Your task to perform on an android device: Search for sushi restaurants on Maps Image 0: 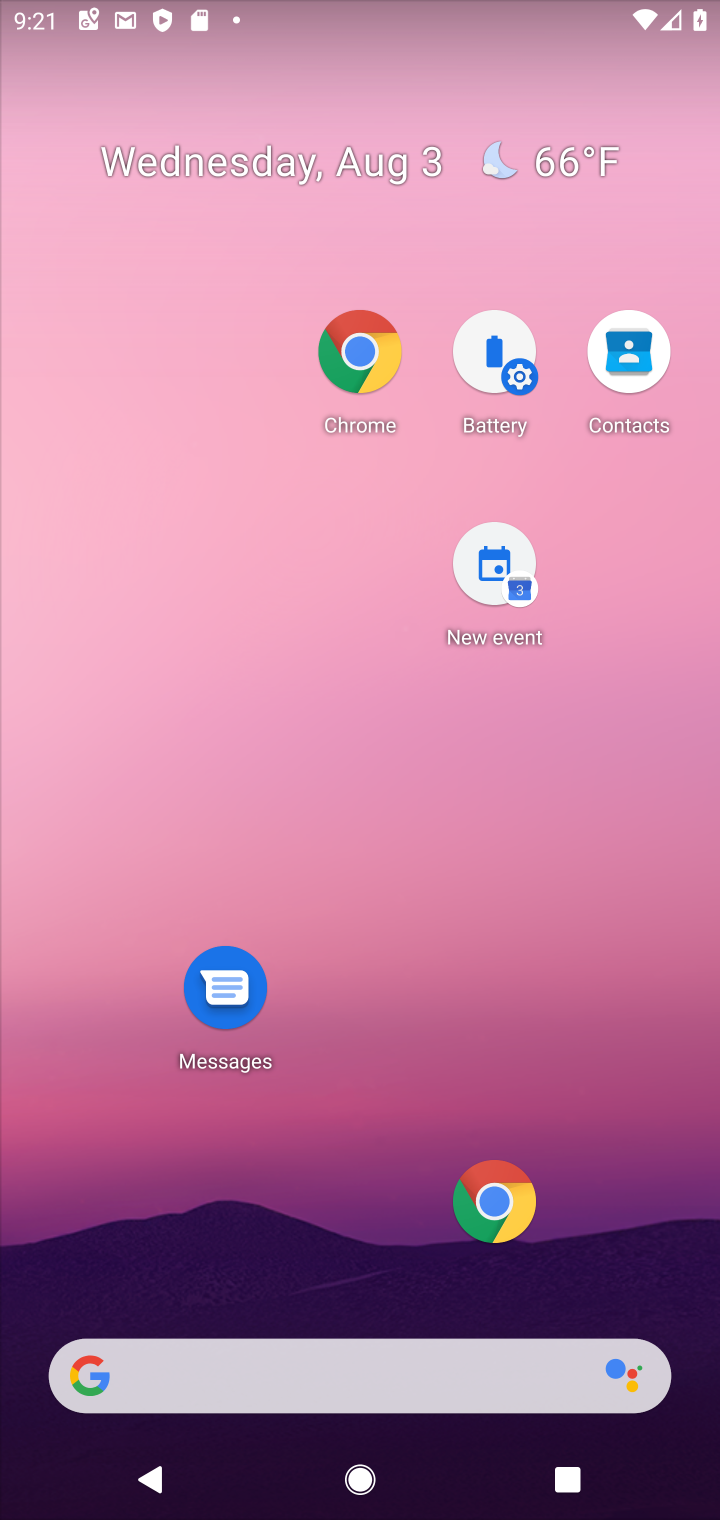
Step 0: drag from (418, 791) to (384, 42)
Your task to perform on an android device: Search for sushi restaurants on Maps Image 1: 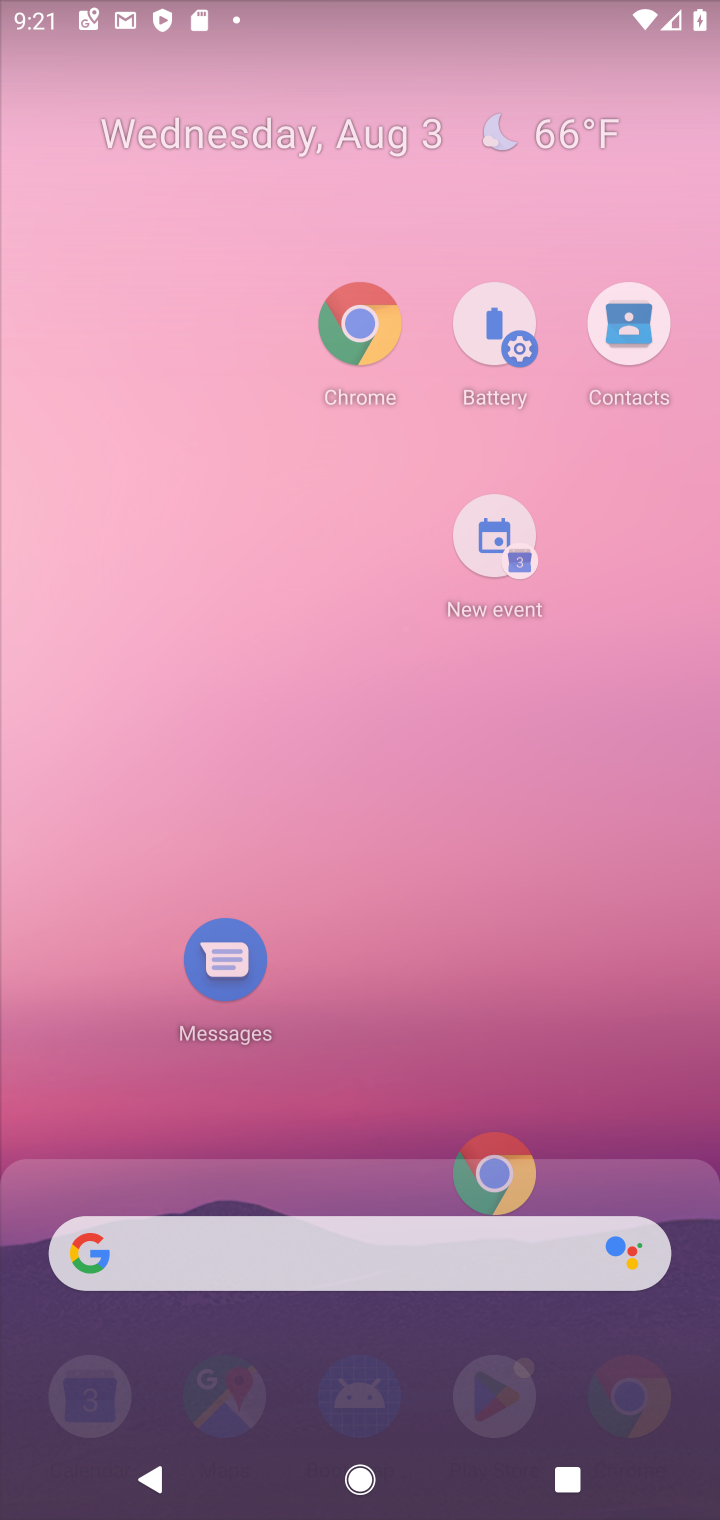
Step 1: drag from (355, 228) to (330, 11)
Your task to perform on an android device: Search for sushi restaurants on Maps Image 2: 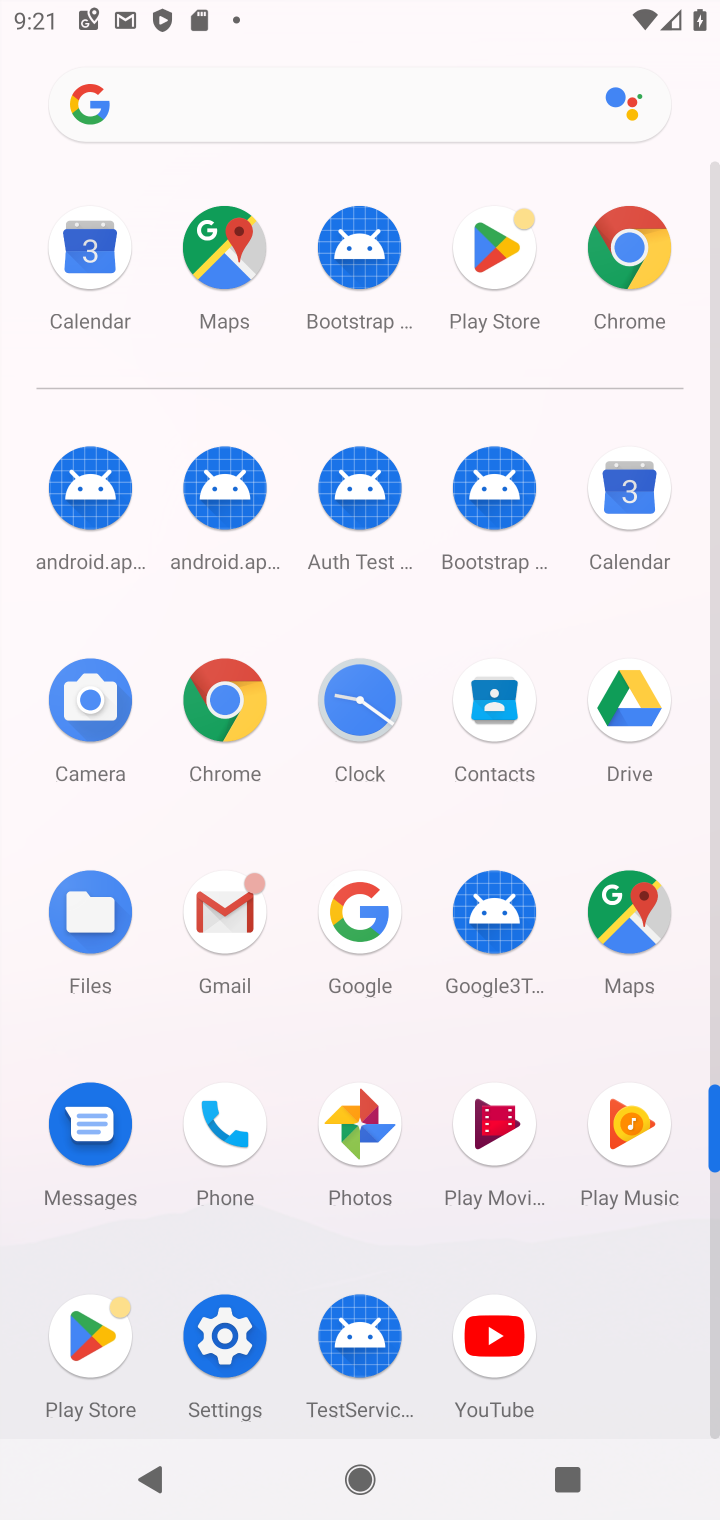
Step 2: click (619, 907)
Your task to perform on an android device: Search for sushi restaurants on Maps Image 3: 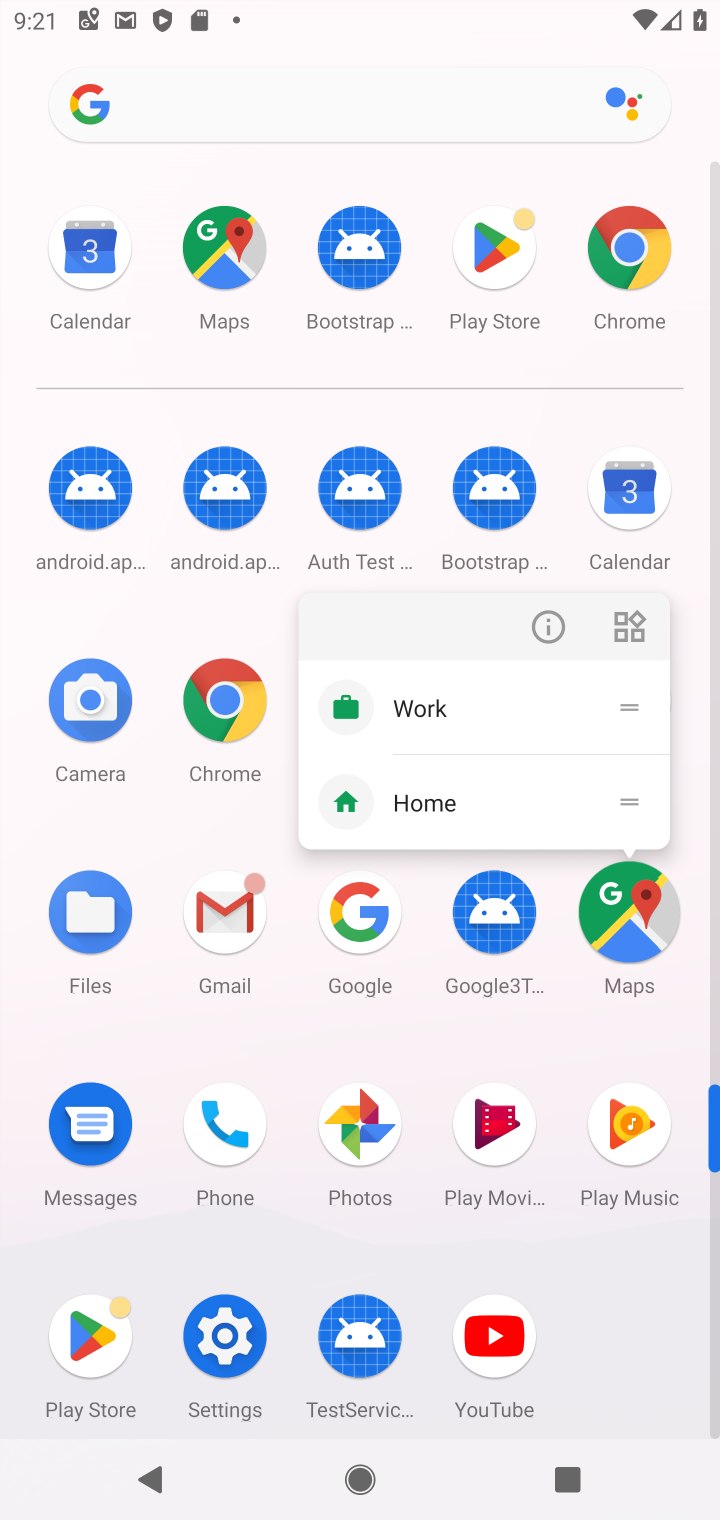
Step 3: click (619, 907)
Your task to perform on an android device: Search for sushi restaurants on Maps Image 4: 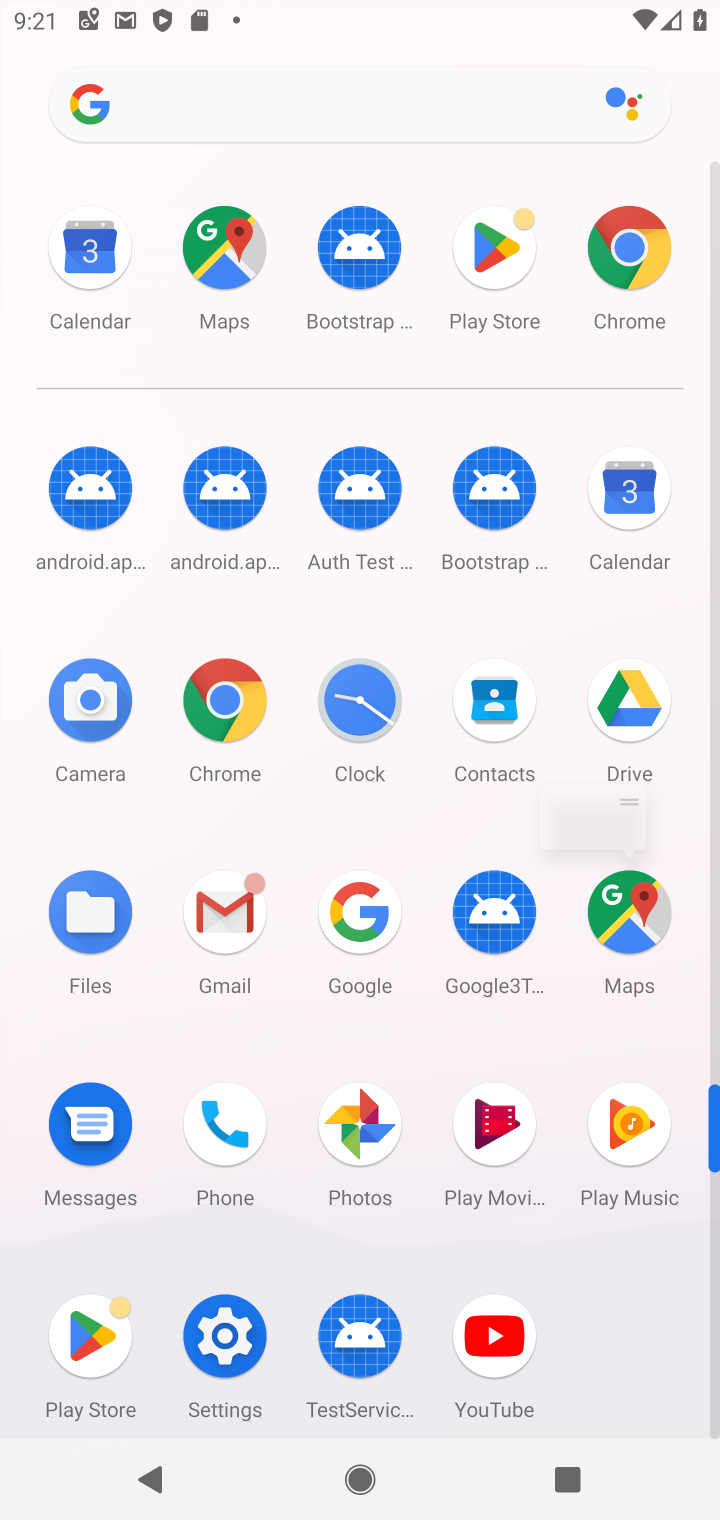
Step 4: click (619, 904)
Your task to perform on an android device: Search for sushi restaurants on Maps Image 5: 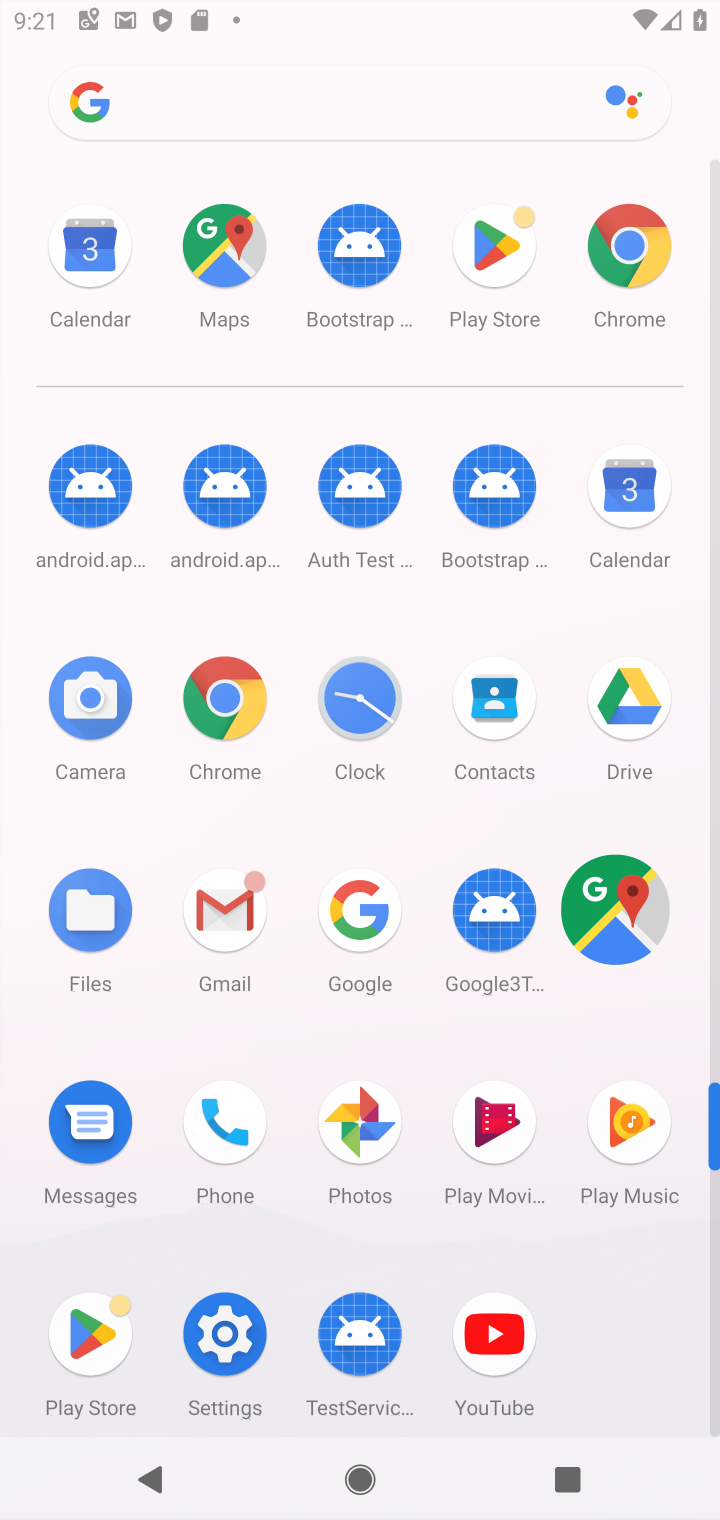
Step 5: click (617, 905)
Your task to perform on an android device: Search for sushi restaurants on Maps Image 6: 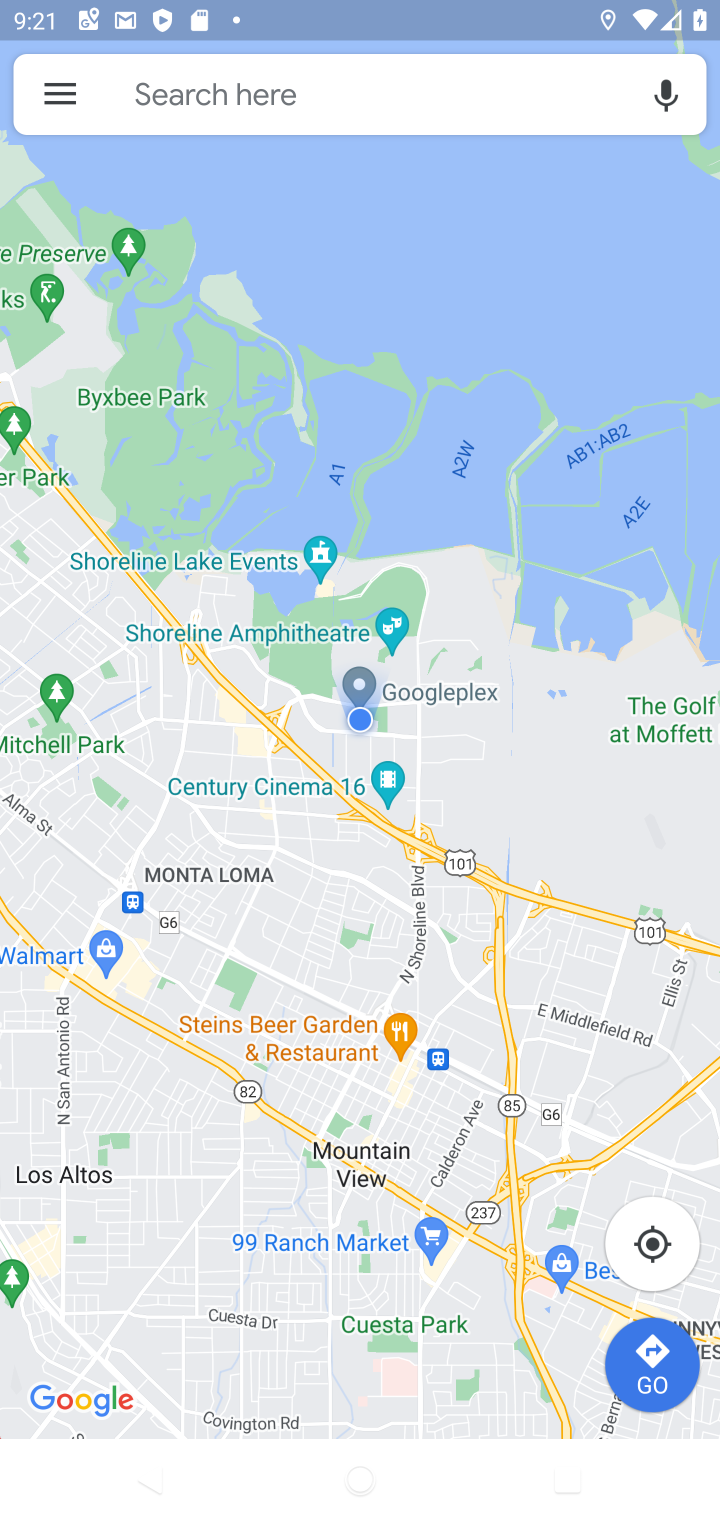
Step 6: click (163, 88)
Your task to perform on an android device: Search for sushi restaurants on Maps Image 7: 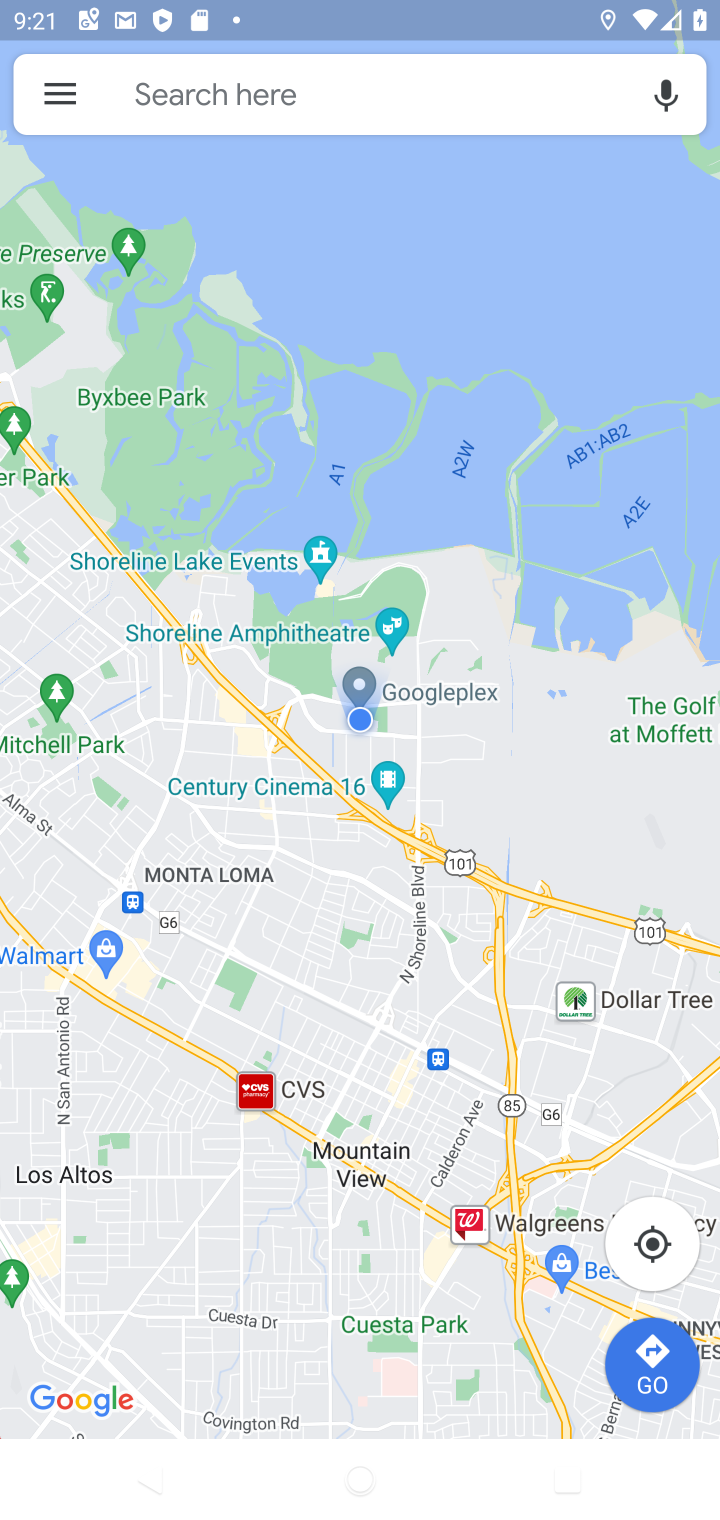
Step 7: click (163, 88)
Your task to perform on an android device: Search for sushi restaurants on Maps Image 8: 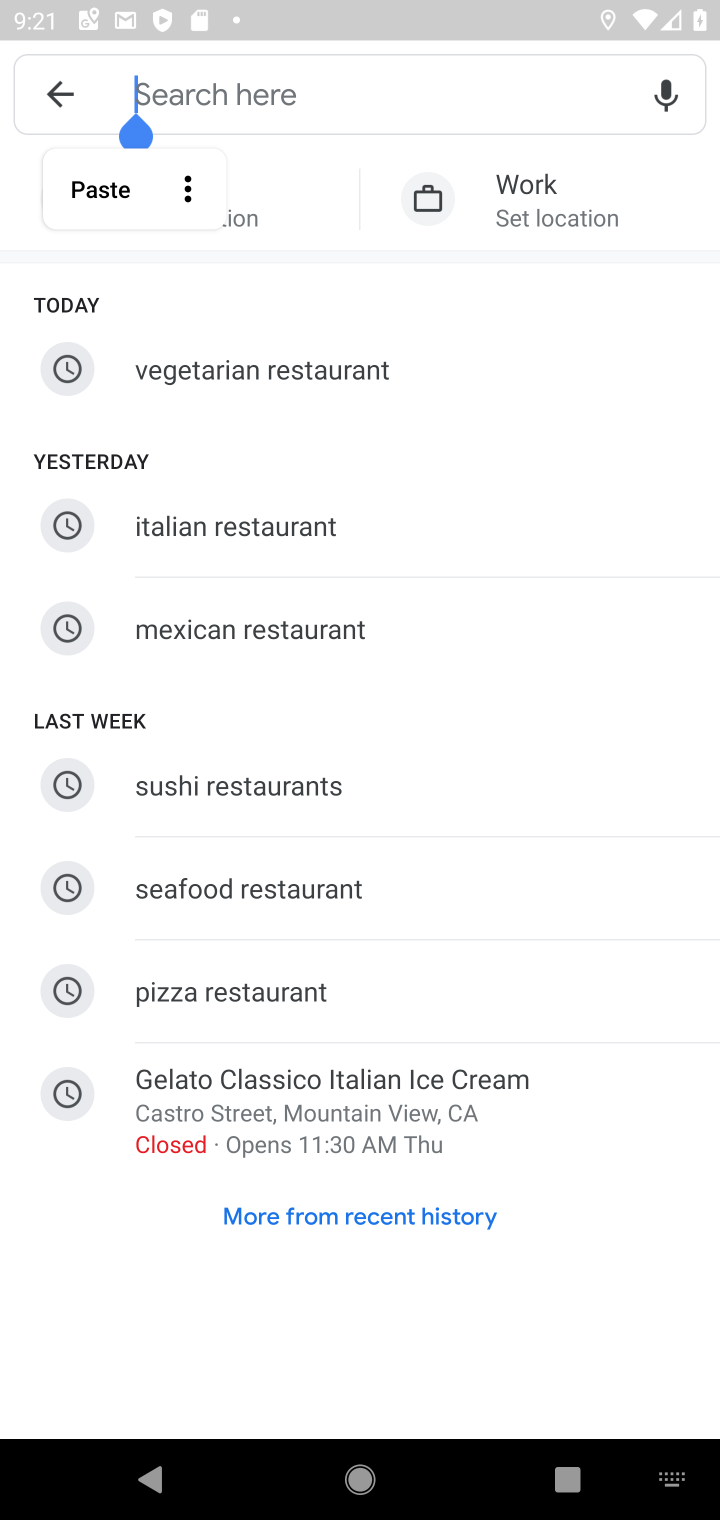
Step 8: click (217, 794)
Your task to perform on an android device: Search for sushi restaurants on Maps Image 9: 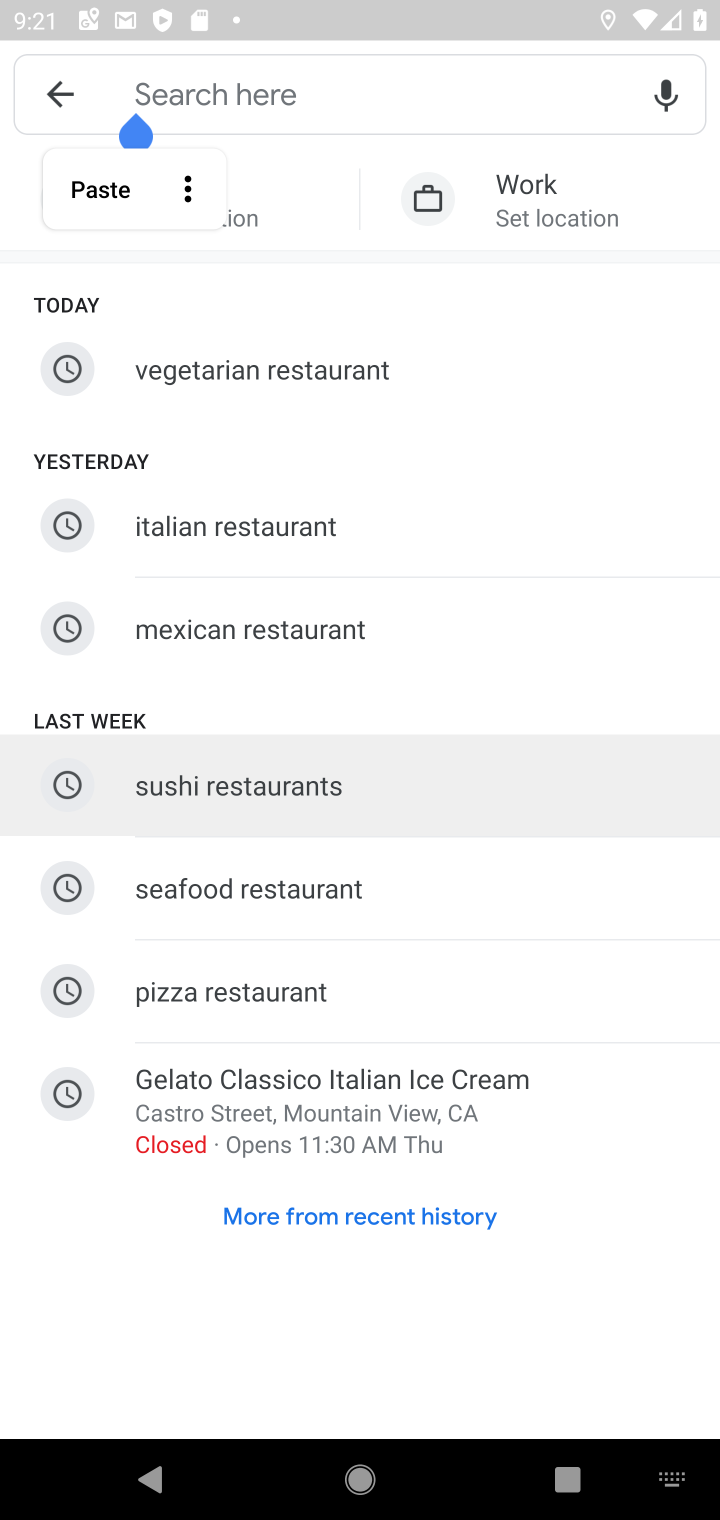
Step 9: click (217, 794)
Your task to perform on an android device: Search for sushi restaurants on Maps Image 10: 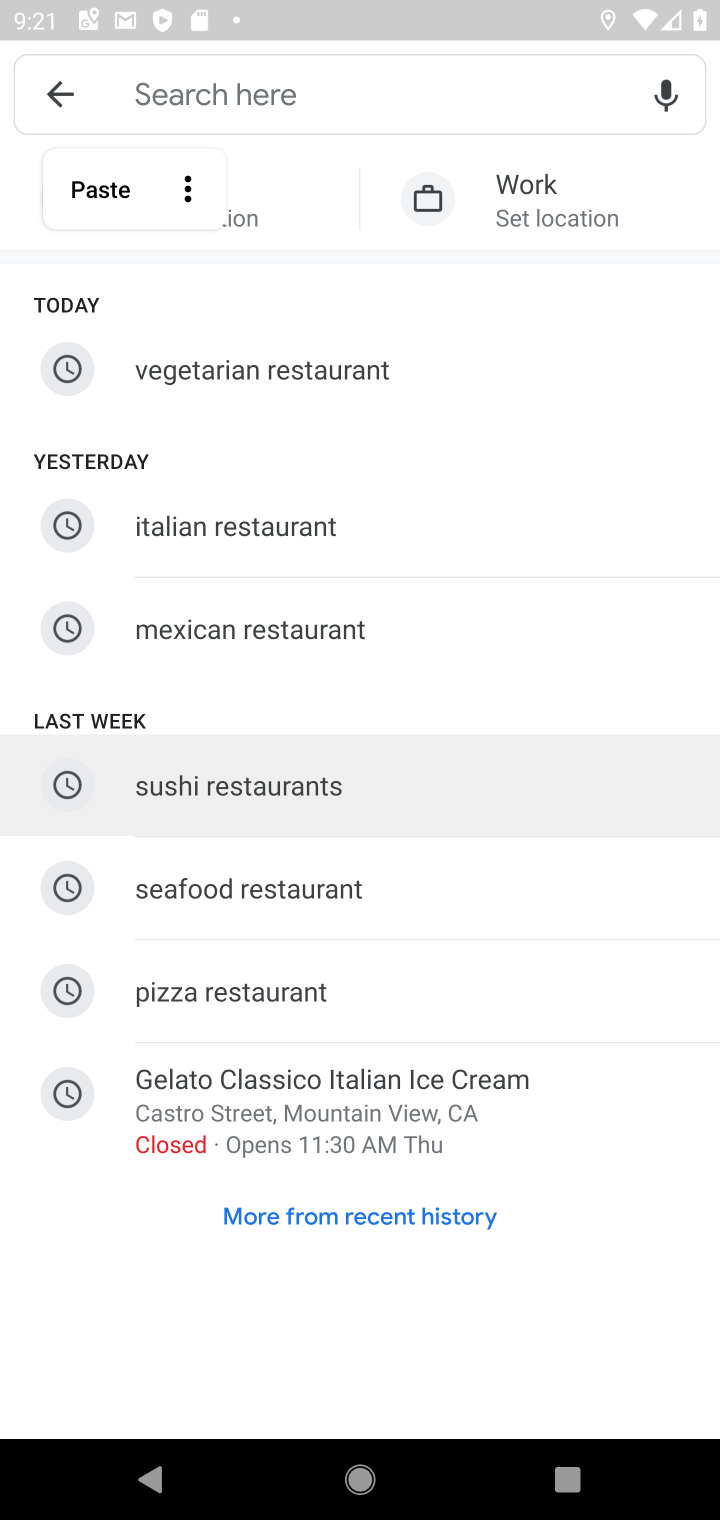
Step 10: click (217, 794)
Your task to perform on an android device: Search for sushi restaurants on Maps Image 11: 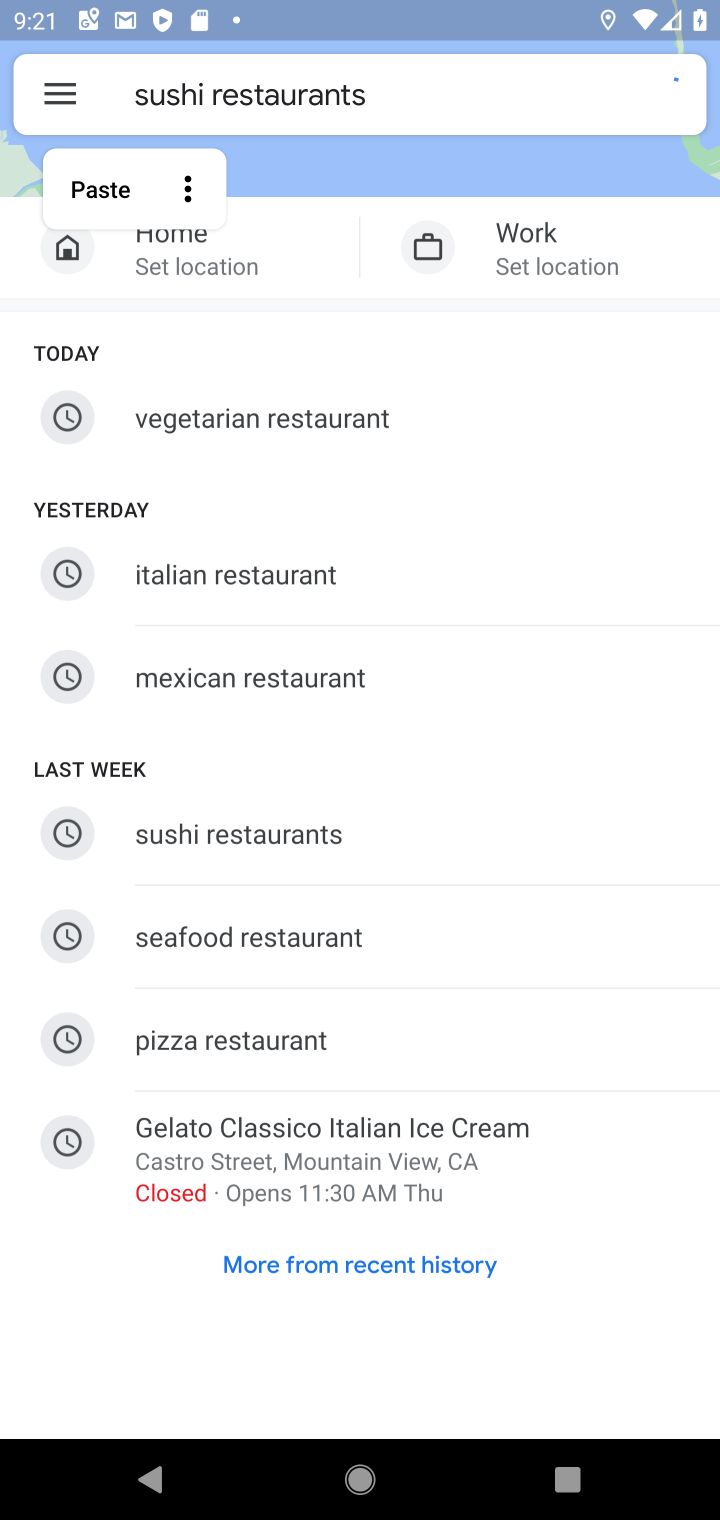
Step 11: click (217, 794)
Your task to perform on an android device: Search for sushi restaurants on Maps Image 12: 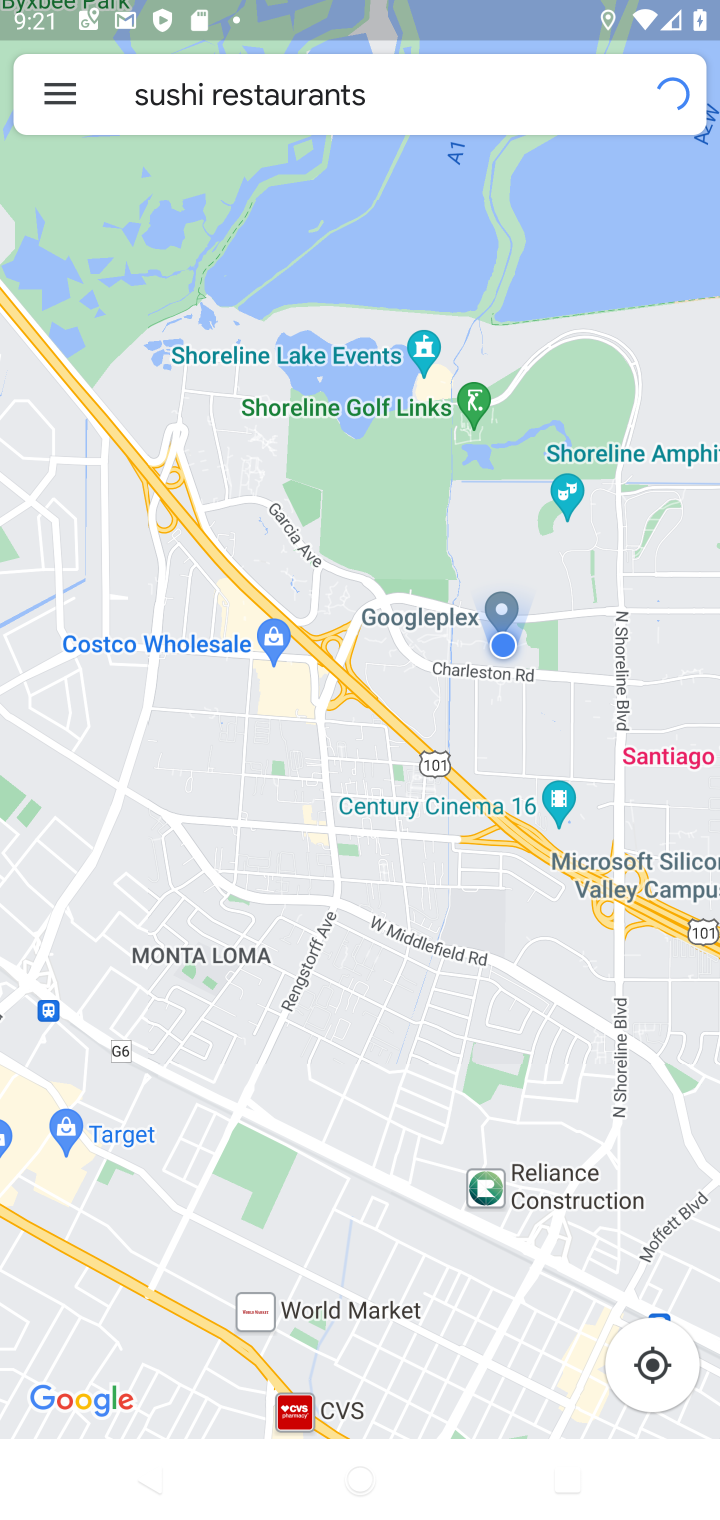
Step 12: task complete